Your task to perform on an android device: turn pop-ups on in chrome Image 0: 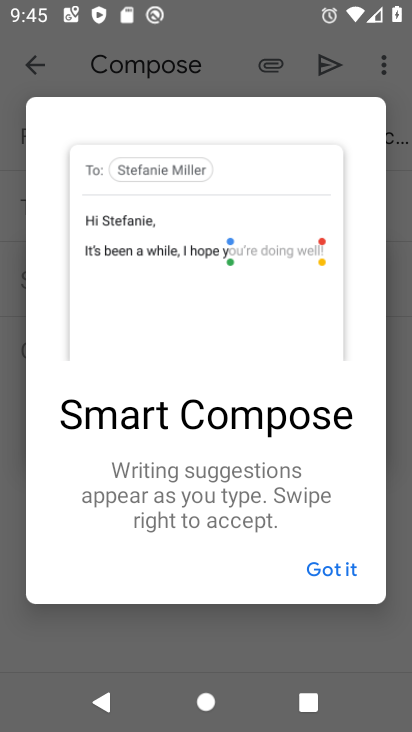
Step 0: press home button
Your task to perform on an android device: turn pop-ups on in chrome Image 1: 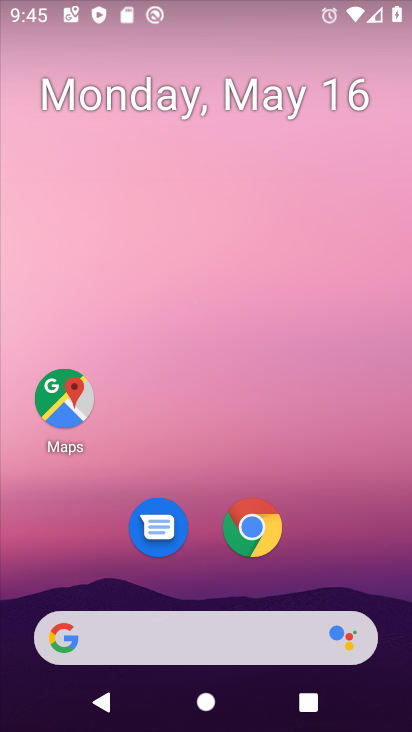
Step 1: click (255, 533)
Your task to perform on an android device: turn pop-ups on in chrome Image 2: 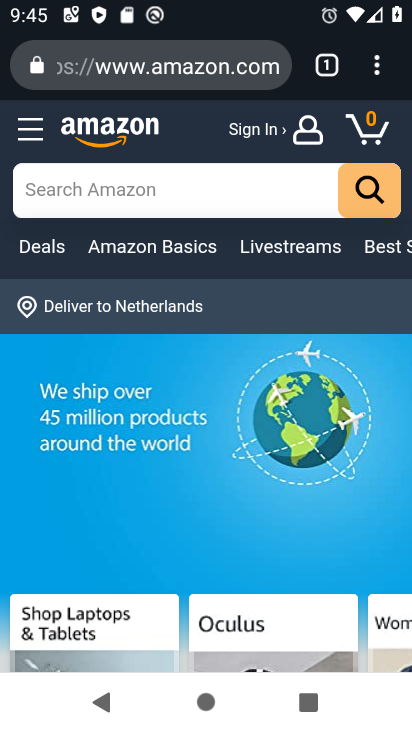
Step 2: click (381, 70)
Your task to perform on an android device: turn pop-ups on in chrome Image 3: 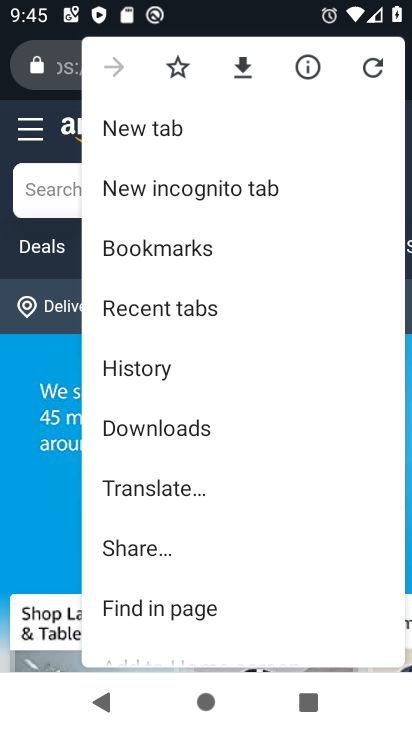
Step 3: drag from (269, 529) to (280, 156)
Your task to perform on an android device: turn pop-ups on in chrome Image 4: 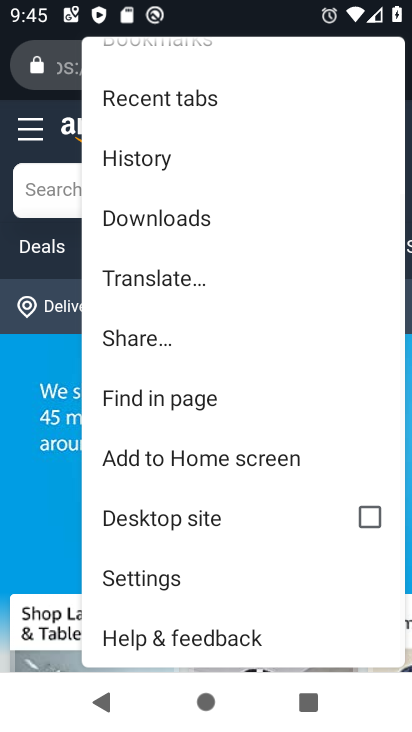
Step 4: click (142, 581)
Your task to perform on an android device: turn pop-ups on in chrome Image 5: 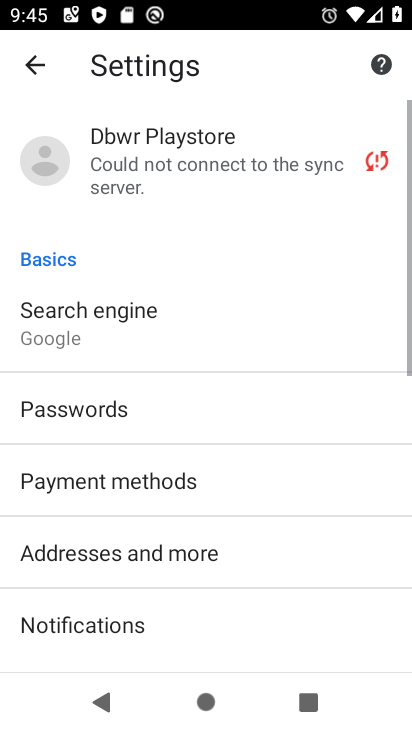
Step 5: drag from (215, 584) to (253, 159)
Your task to perform on an android device: turn pop-ups on in chrome Image 6: 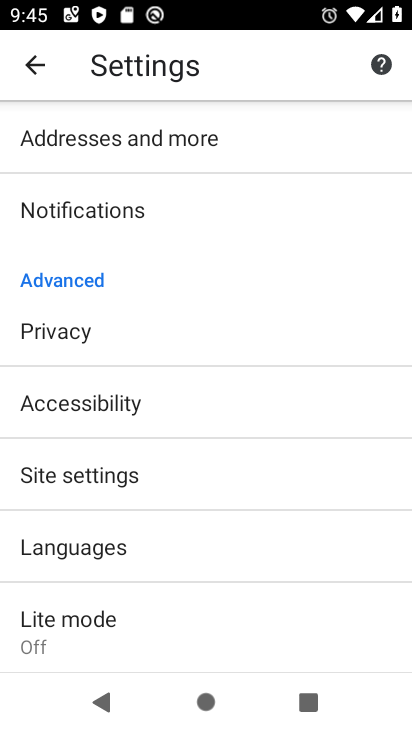
Step 6: click (87, 476)
Your task to perform on an android device: turn pop-ups on in chrome Image 7: 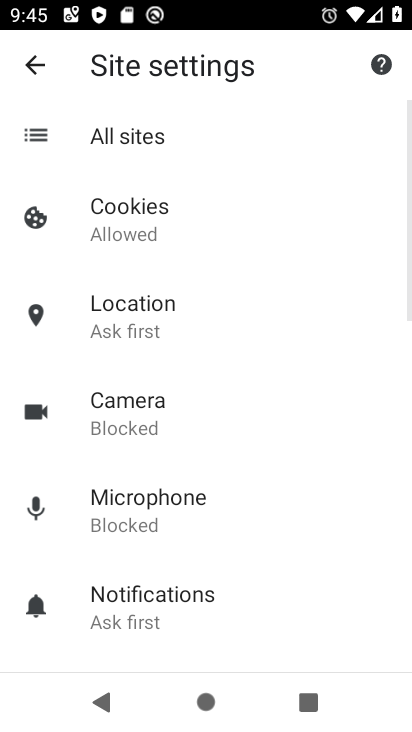
Step 7: drag from (263, 554) to (286, 157)
Your task to perform on an android device: turn pop-ups on in chrome Image 8: 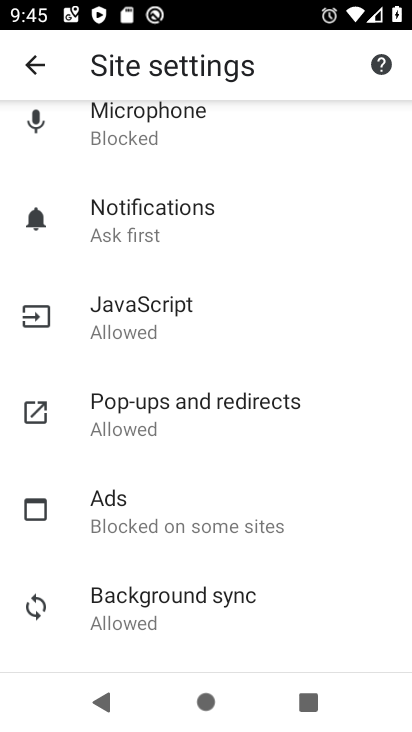
Step 8: click (152, 412)
Your task to perform on an android device: turn pop-ups on in chrome Image 9: 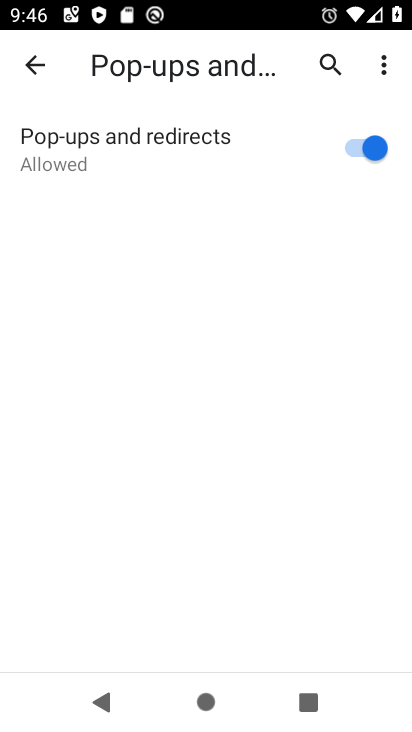
Step 9: task complete